Your task to perform on an android device: Open the calendar and show me this week's events? Image 0: 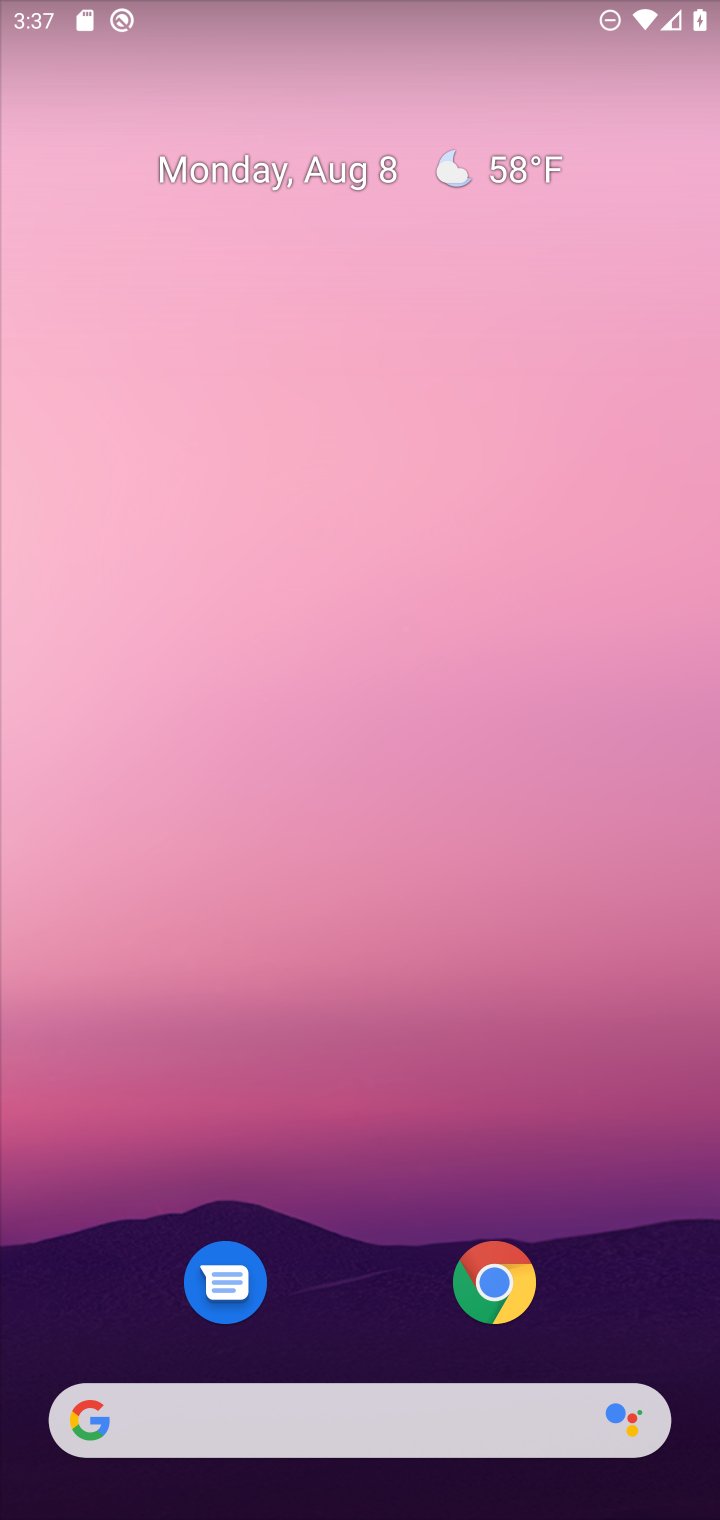
Step 0: drag from (403, 1098) to (625, 278)
Your task to perform on an android device: Open the calendar and show me this week's events? Image 1: 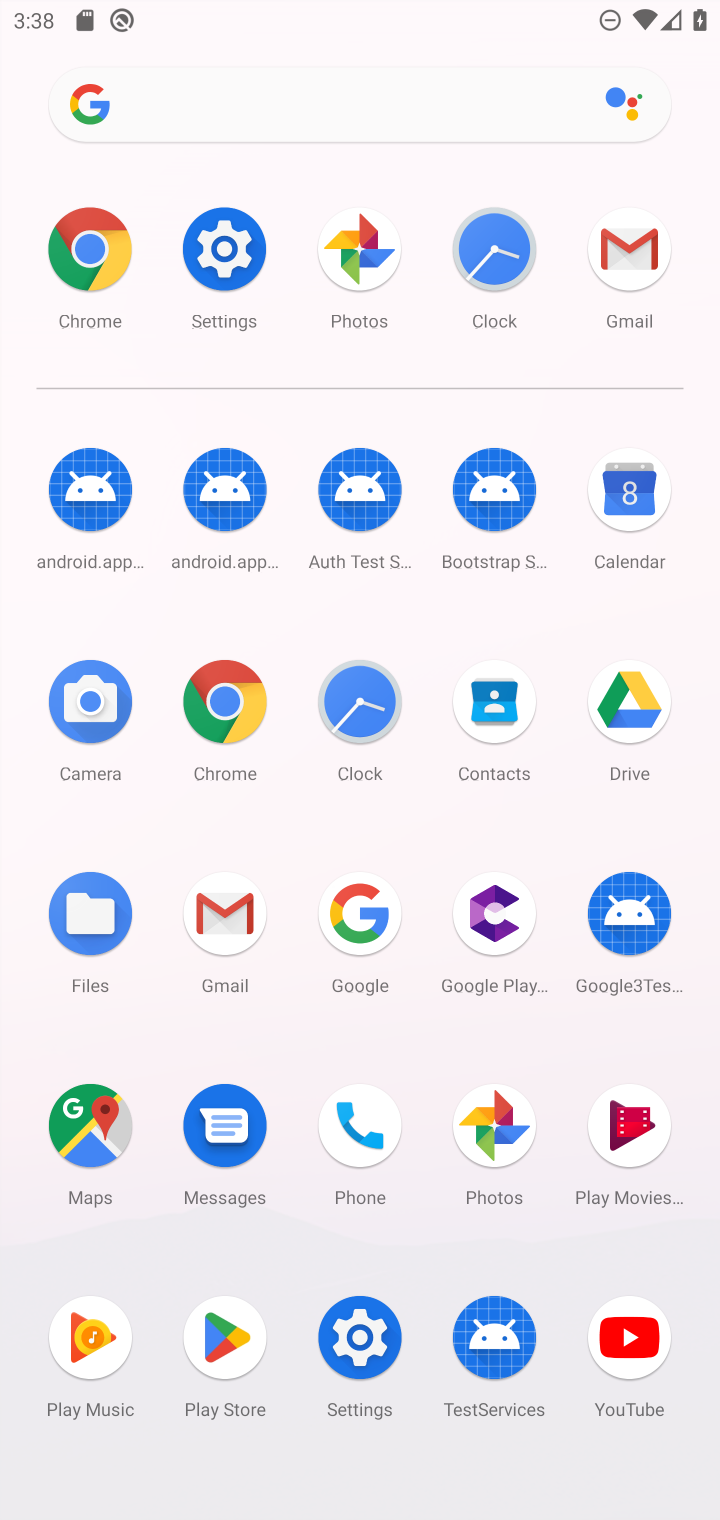
Step 1: click (614, 502)
Your task to perform on an android device: Open the calendar and show me this week's events? Image 2: 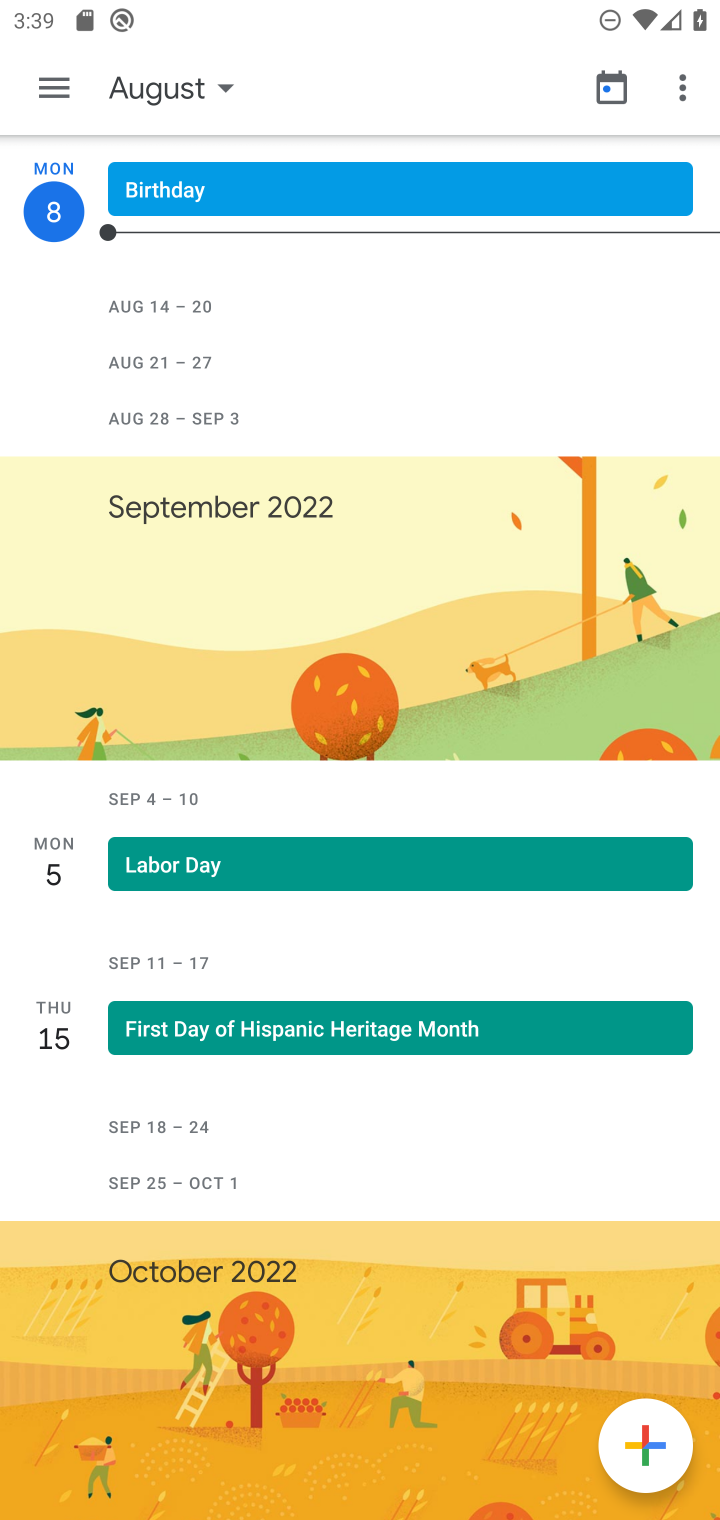
Step 2: click (42, 68)
Your task to perform on an android device: Open the calendar and show me this week's events? Image 3: 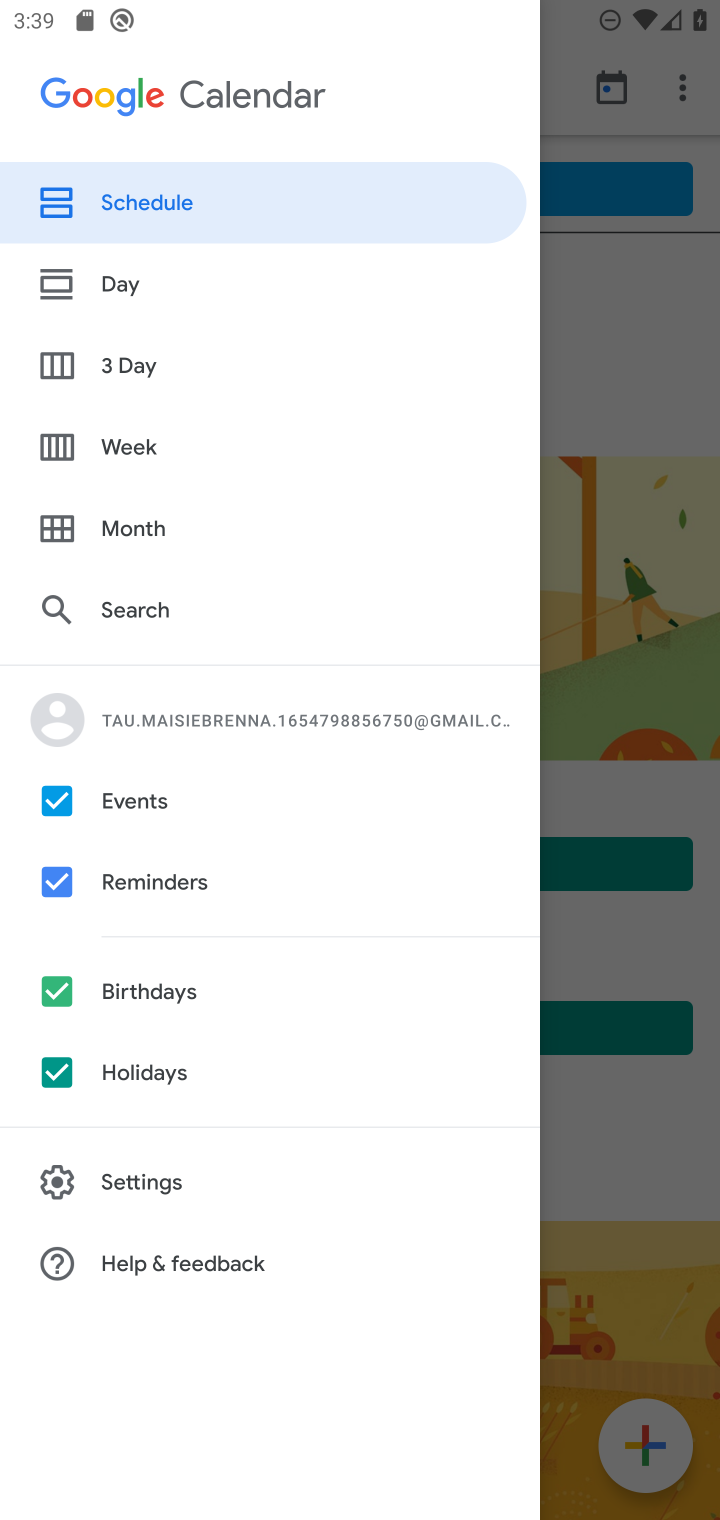
Step 3: click (134, 444)
Your task to perform on an android device: Open the calendar and show me this week's events? Image 4: 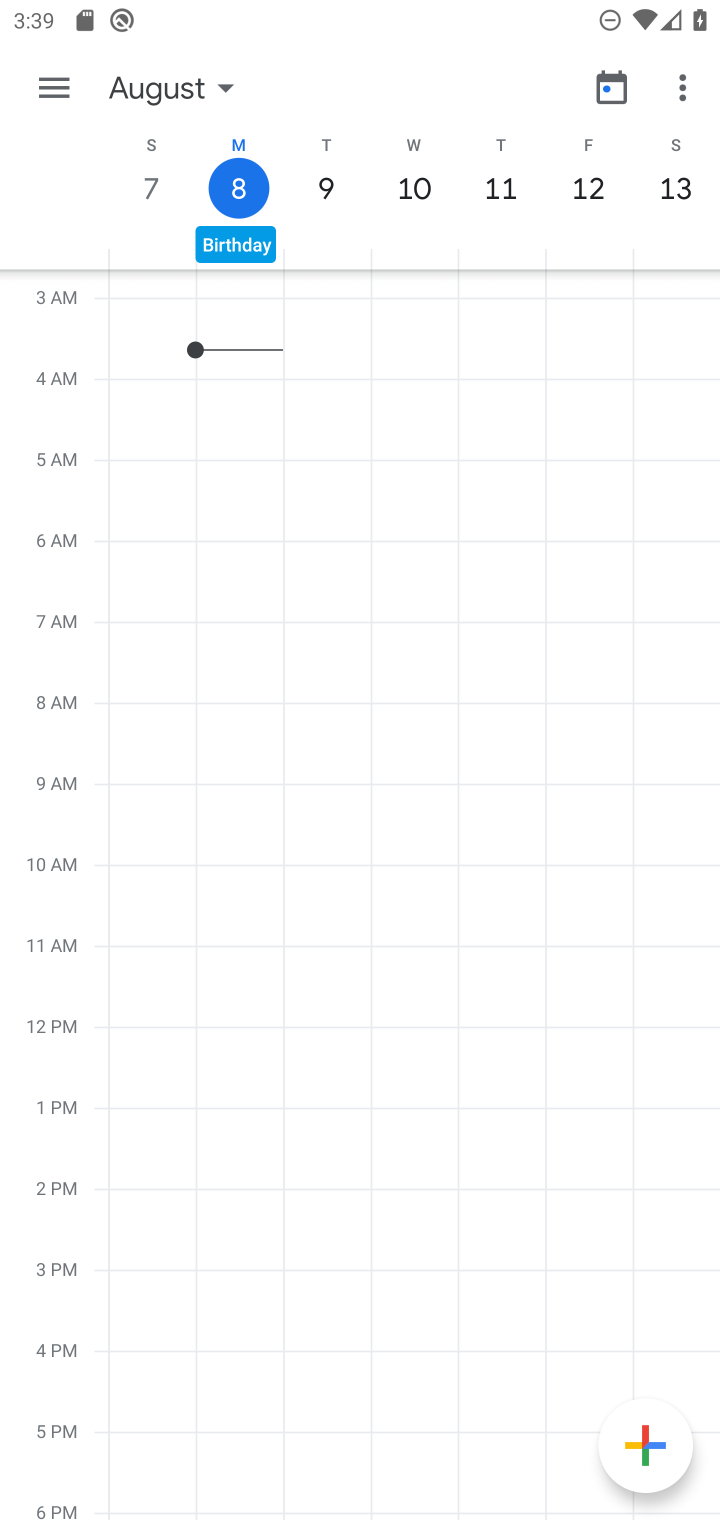
Step 4: task complete